Your task to perform on an android device: Check the news Image 0: 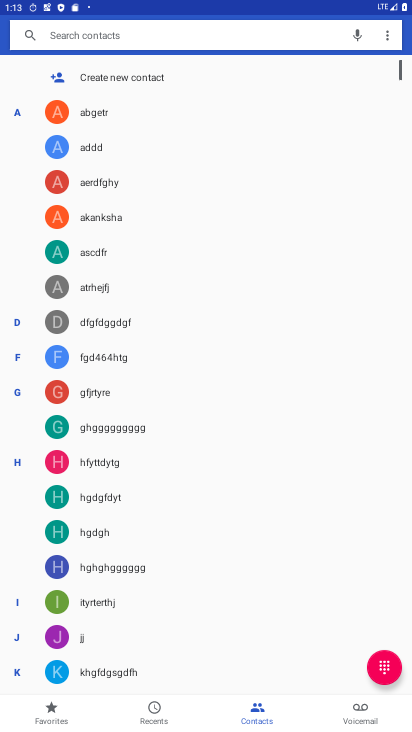
Step 0: press home button
Your task to perform on an android device: Check the news Image 1: 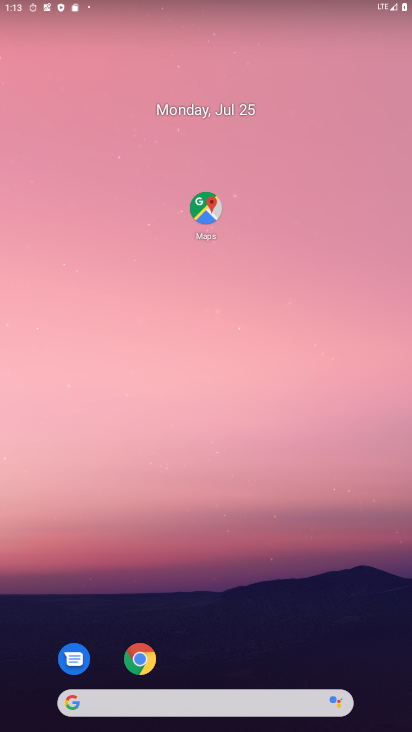
Step 1: click (98, 700)
Your task to perform on an android device: Check the news Image 2: 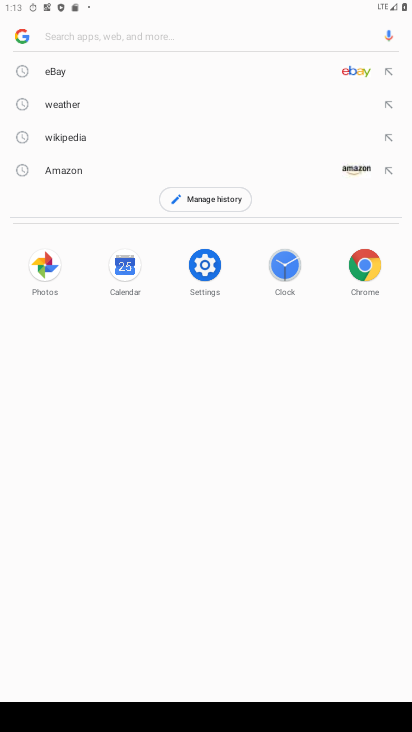
Step 2: type "news"
Your task to perform on an android device: Check the news Image 3: 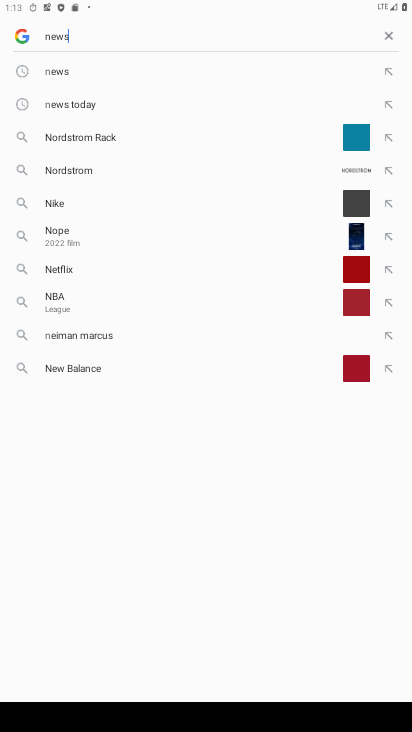
Step 3: type ""
Your task to perform on an android device: Check the news Image 4: 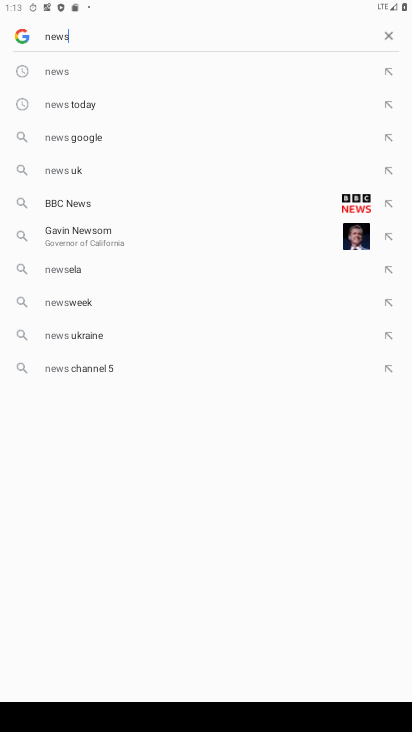
Step 4: click (47, 79)
Your task to perform on an android device: Check the news Image 5: 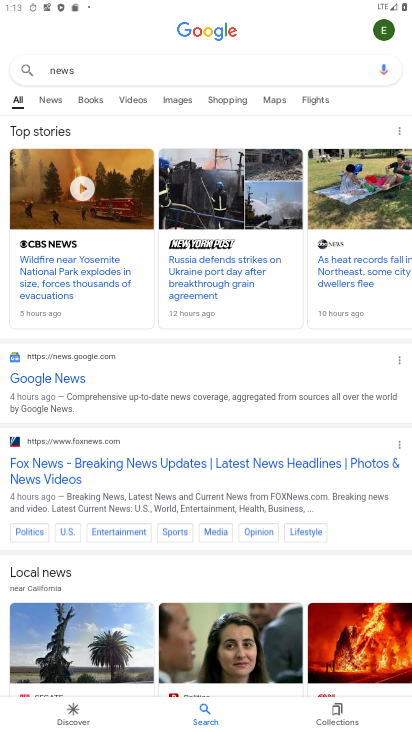
Step 5: task complete